Your task to perform on an android device: Open maps Image 0: 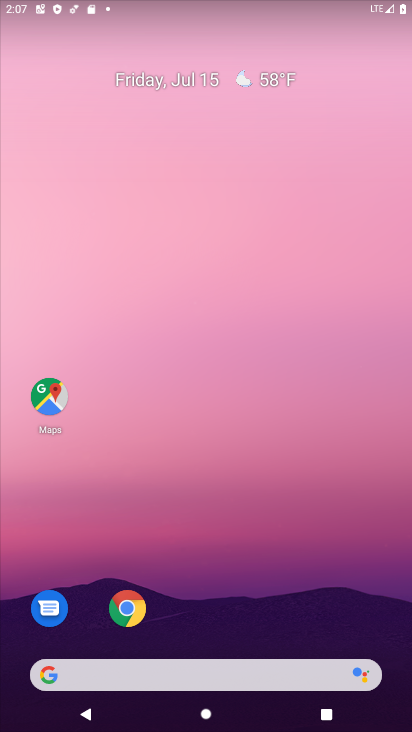
Step 0: drag from (234, 641) to (318, 24)
Your task to perform on an android device: Open maps Image 1: 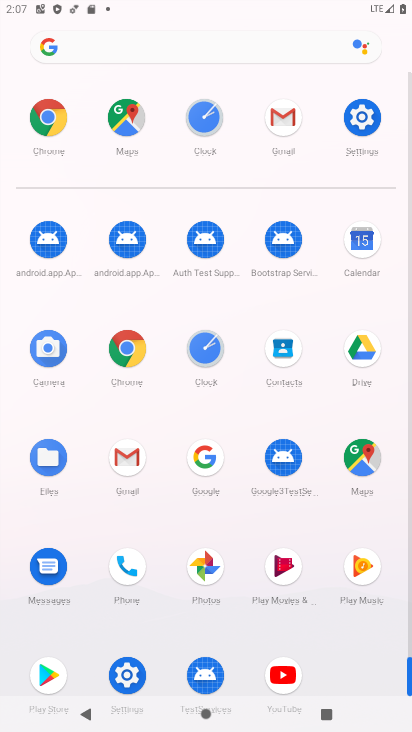
Step 1: click (367, 463)
Your task to perform on an android device: Open maps Image 2: 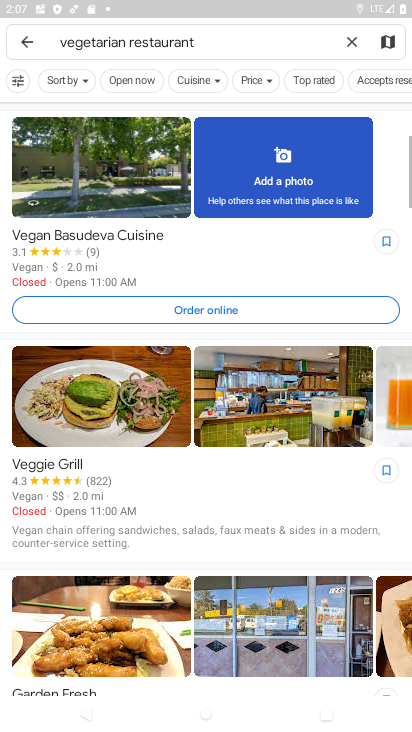
Step 2: click (27, 36)
Your task to perform on an android device: Open maps Image 3: 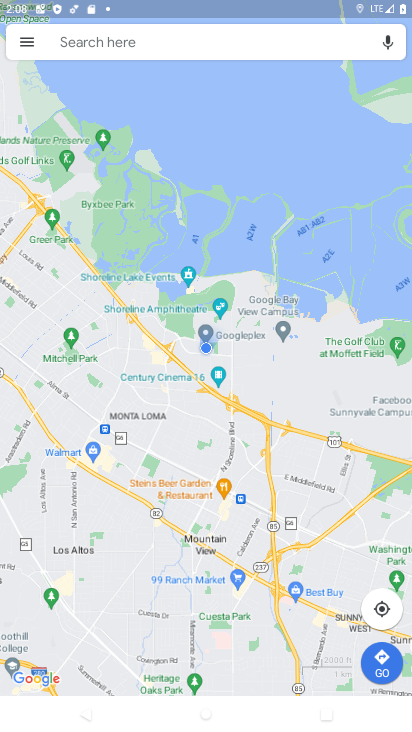
Step 3: task complete